Your task to perform on an android device: turn on improve location accuracy Image 0: 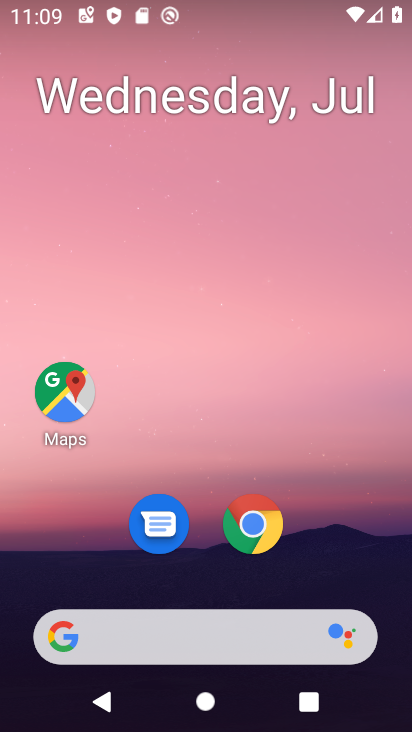
Step 0: press home button
Your task to perform on an android device: turn on improve location accuracy Image 1: 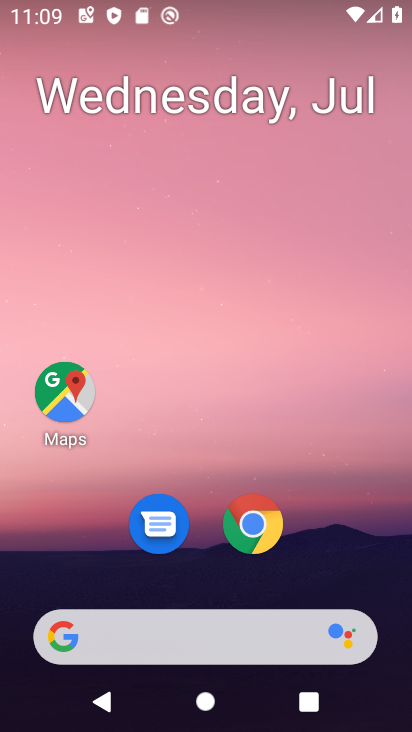
Step 1: drag from (144, 636) to (298, 74)
Your task to perform on an android device: turn on improve location accuracy Image 2: 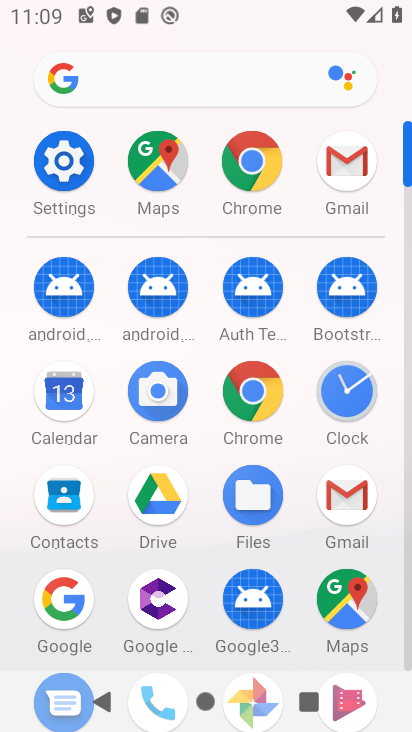
Step 2: click (62, 158)
Your task to perform on an android device: turn on improve location accuracy Image 3: 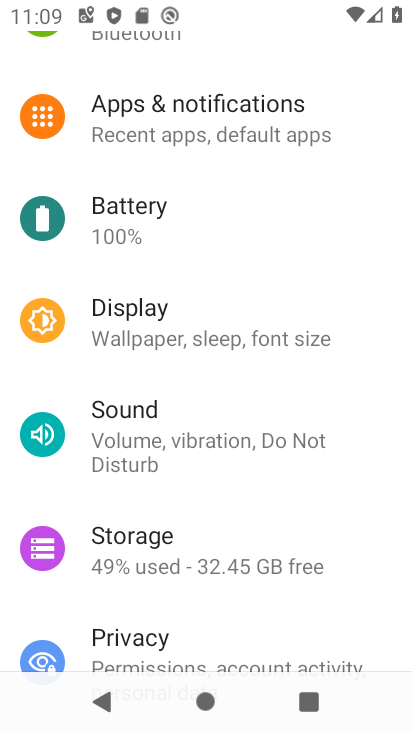
Step 3: drag from (171, 581) to (264, 109)
Your task to perform on an android device: turn on improve location accuracy Image 4: 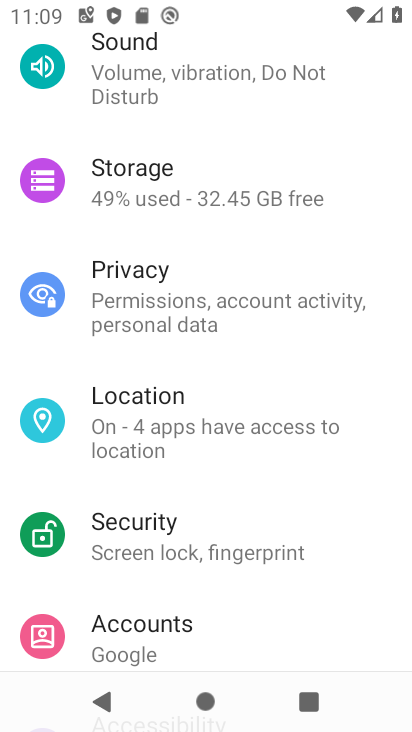
Step 4: click (148, 425)
Your task to perform on an android device: turn on improve location accuracy Image 5: 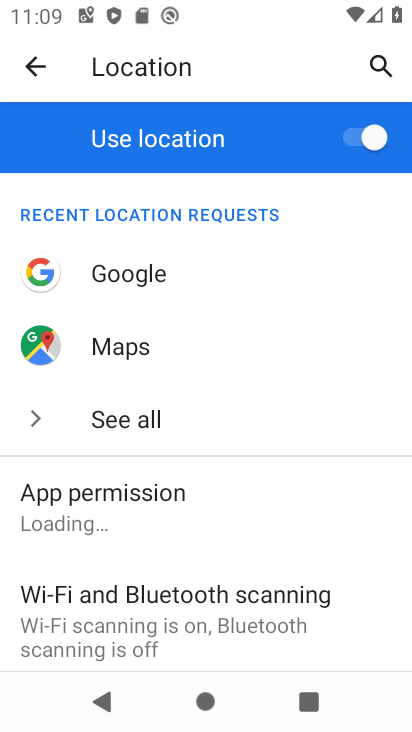
Step 5: drag from (177, 558) to (259, 251)
Your task to perform on an android device: turn on improve location accuracy Image 6: 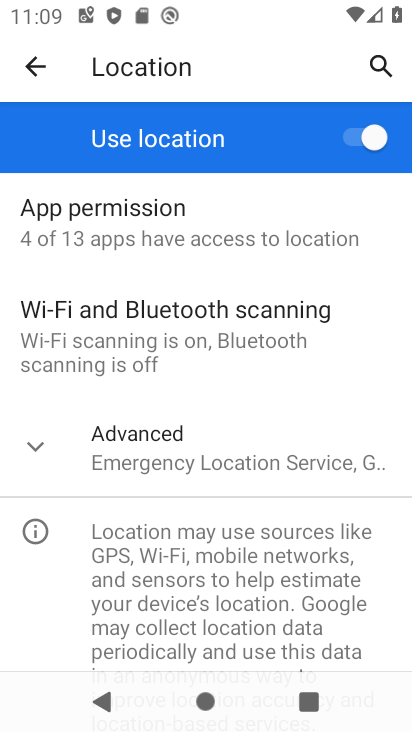
Step 6: click (167, 457)
Your task to perform on an android device: turn on improve location accuracy Image 7: 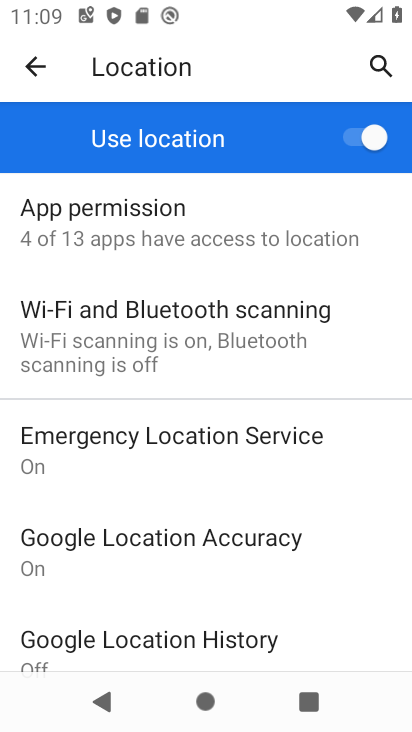
Step 7: click (166, 551)
Your task to perform on an android device: turn on improve location accuracy Image 8: 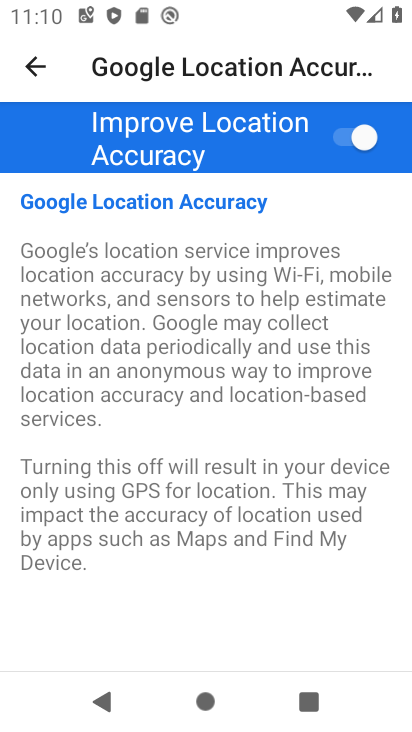
Step 8: task complete